Your task to perform on an android device: Open Google Maps Image 0: 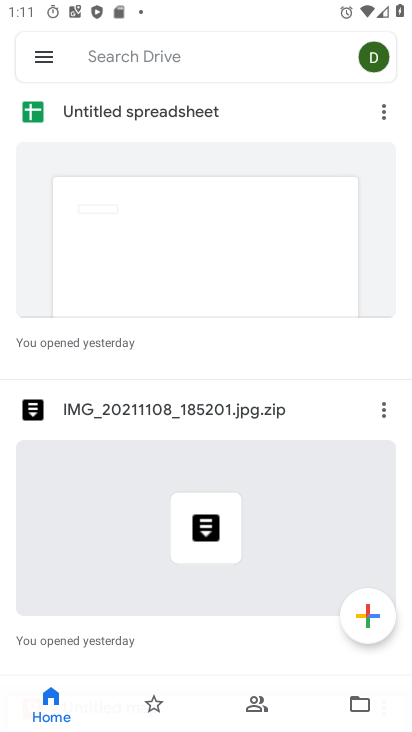
Step 0: press home button
Your task to perform on an android device: Open Google Maps Image 1: 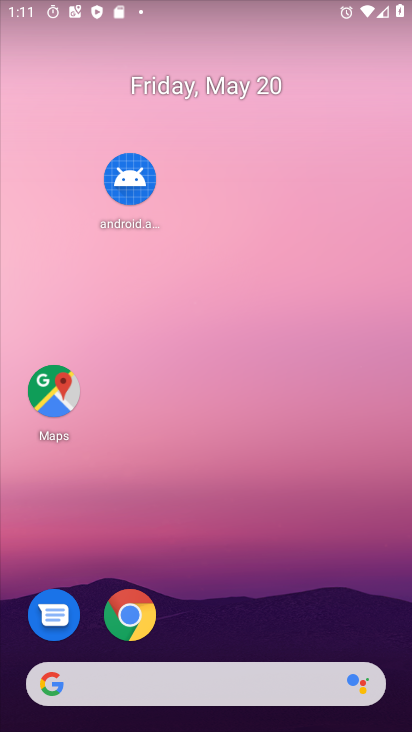
Step 1: click (57, 399)
Your task to perform on an android device: Open Google Maps Image 2: 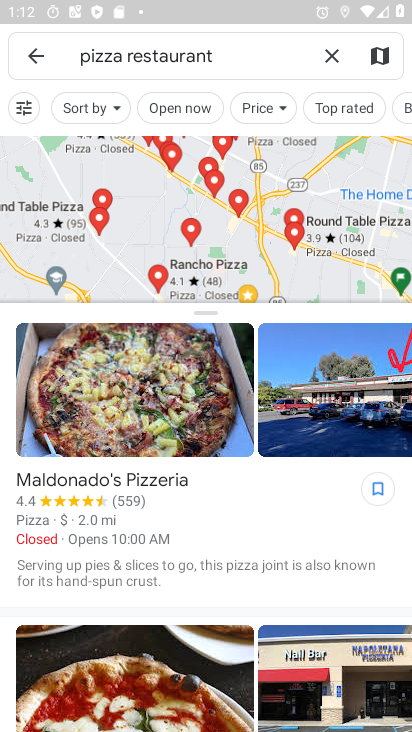
Step 2: task complete